Your task to perform on an android device: Open calendar and show me the fourth week of next month Image 0: 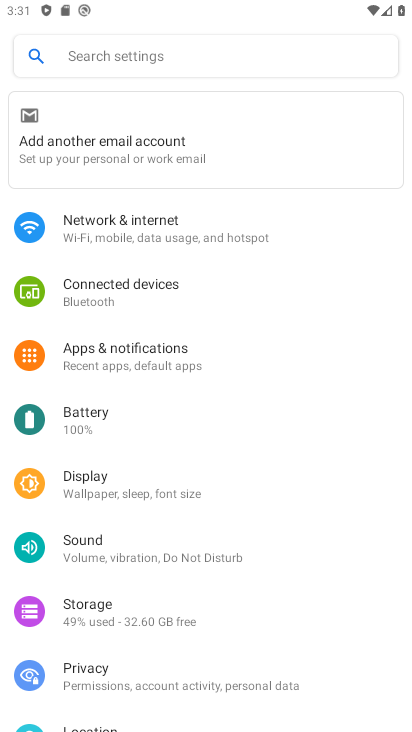
Step 0: press back button
Your task to perform on an android device: Open calendar and show me the fourth week of next month Image 1: 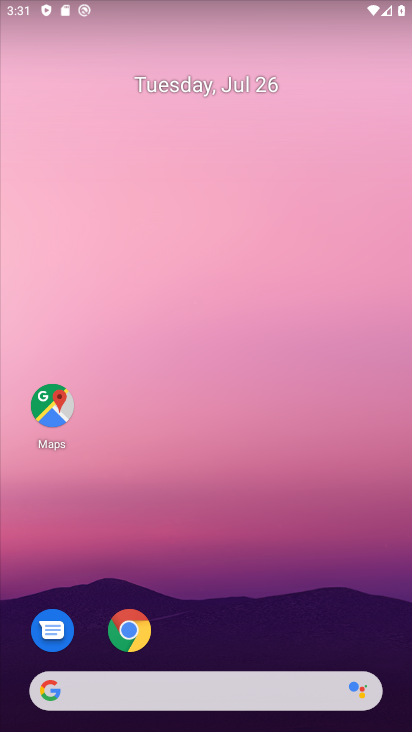
Step 1: drag from (214, 505) to (226, 377)
Your task to perform on an android device: Open calendar and show me the fourth week of next month Image 2: 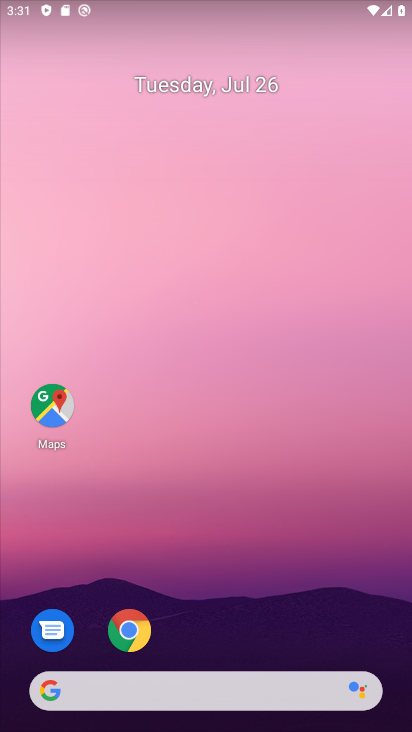
Step 2: drag from (243, 422) to (187, 241)
Your task to perform on an android device: Open calendar and show me the fourth week of next month Image 3: 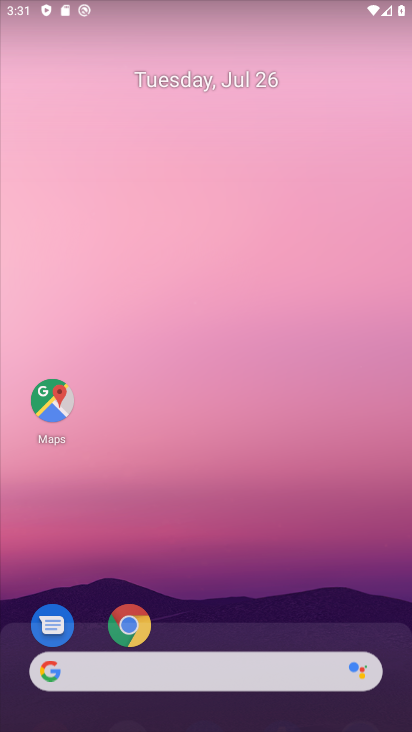
Step 3: drag from (174, 540) to (156, 205)
Your task to perform on an android device: Open calendar and show me the fourth week of next month Image 4: 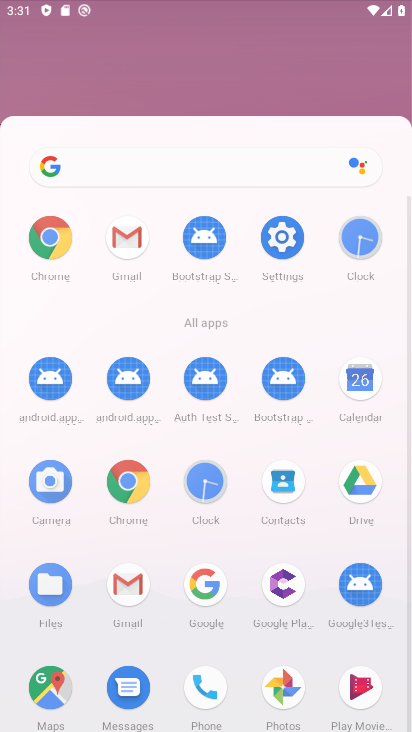
Step 4: drag from (122, 651) to (88, 153)
Your task to perform on an android device: Open calendar and show me the fourth week of next month Image 5: 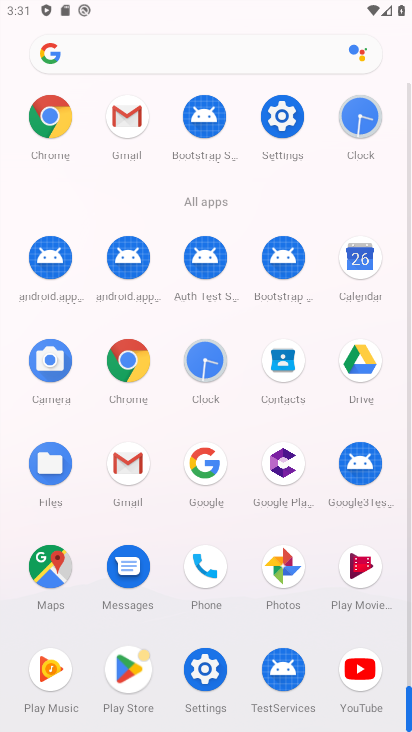
Step 5: click (359, 250)
Your task to perform on an android device: Open calendar and show me the fourth week of next month Image 6: 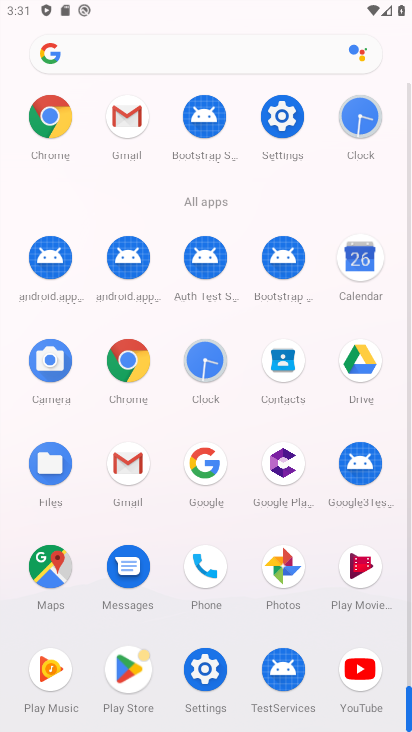
Step 6: click (365, 251)
Your task to perform on an android device: Open calendar and show me the fourth week of next month Image 7: 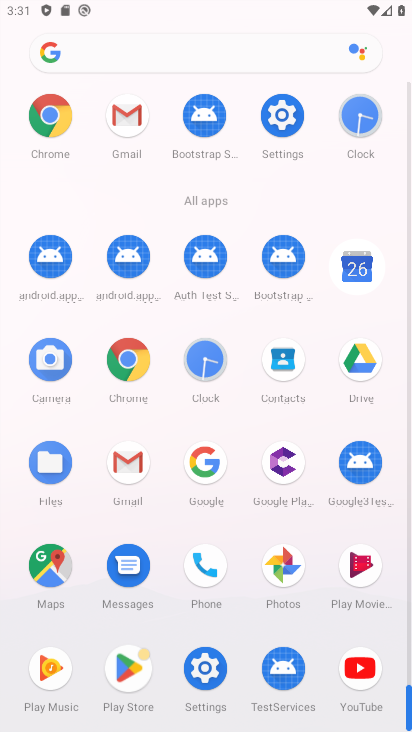
Step 7: click (365, 251)
Your task to perform on an android device: Open calendar and show me the fourth week of next month Image 8: 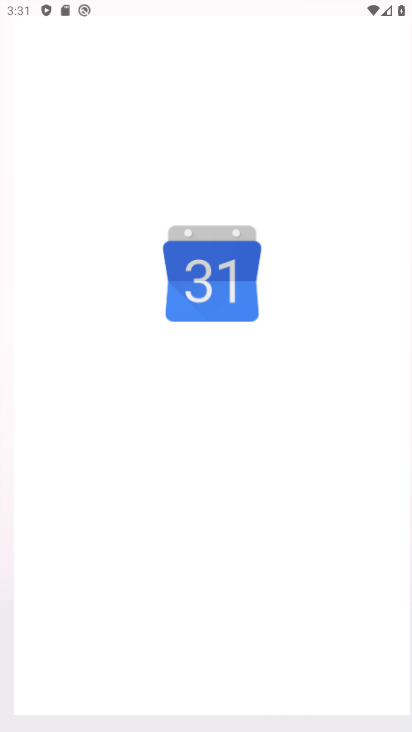
Step 8: click (365, 251)
Your task to perform on an android device: Open calendar and show me the fourth week of next month Image 9: 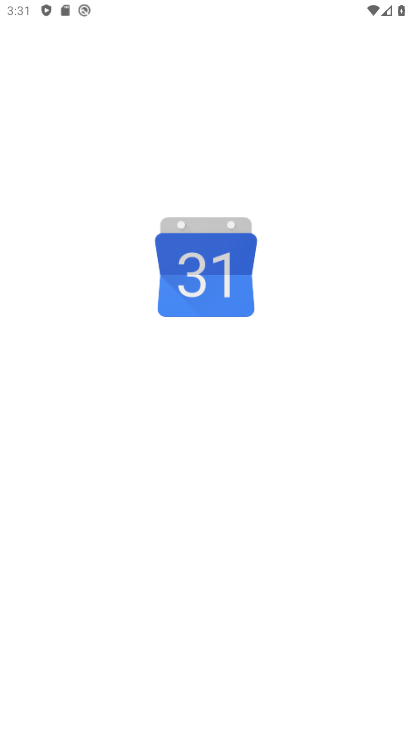
Step 9: click (365, 251)
Your task to perform on an android device: Open calendar and show me the fourth week of next month Image 10: 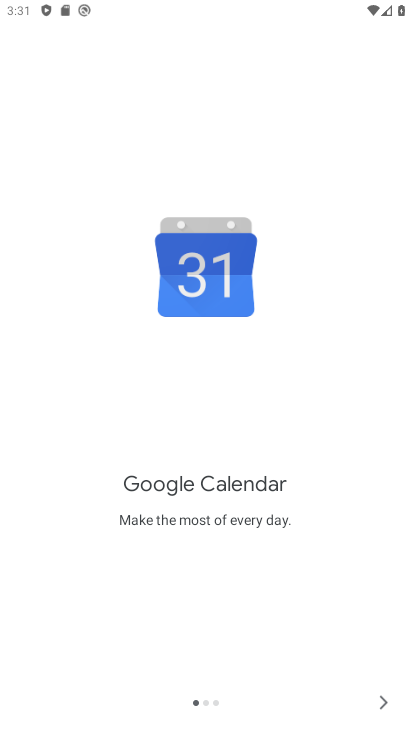
Step 10: click (380, 688)
Your task to perform on an android device: Open calendar and show me the fourth week of next month Image 11: 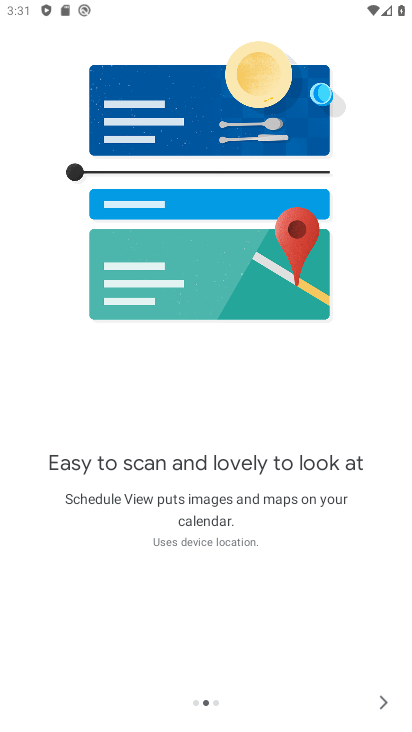
Step 11: click (383, 693)
Your task to perform on an android device: Open calendar and show me the fourth week of next month Image 12: 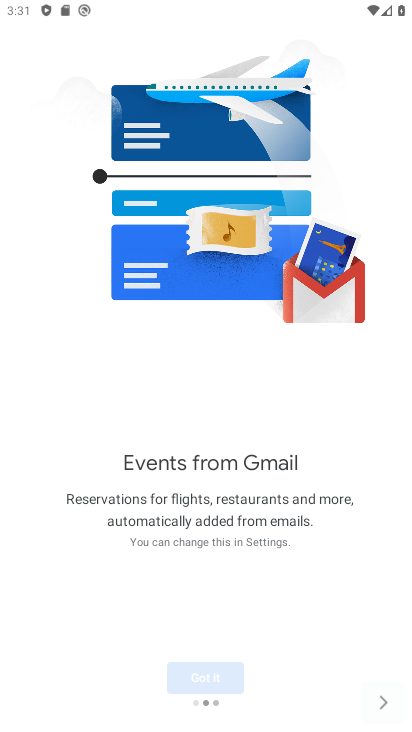
Step 12: click (383, 699)
Your task to perform on an android device: Open calendar and show me the fourth week of next month Image 13: 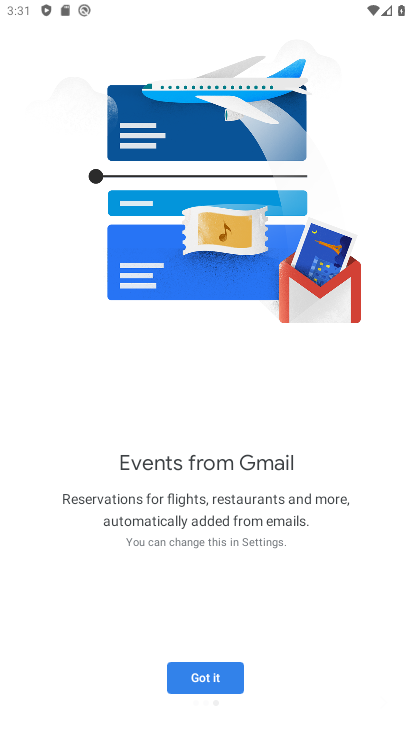
Step 13: click (383, 699)
Your task to perform on an android device: Open calendar and show me the fourth week of next month Image 14: 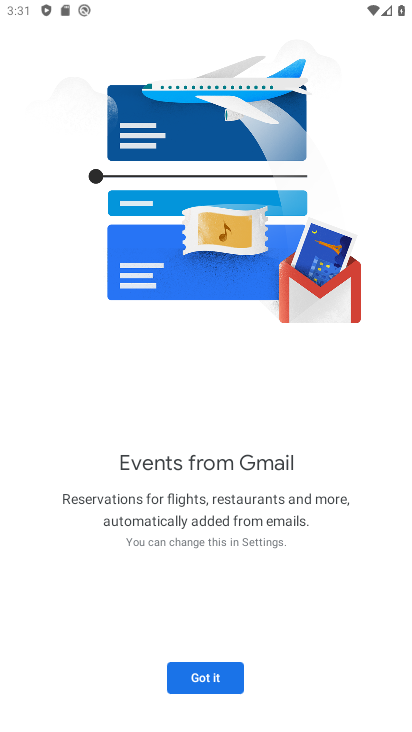
Step 14: click (209, 676)
Your task to perform on an android device: Open calendar and show me the fourth week of next month Image 15: 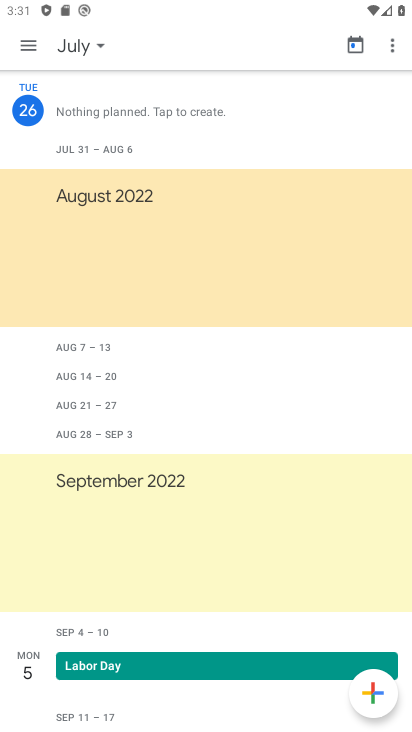
Step 15: click (95, 44)
Your task to perform on an android device: Open calendar and show me the fourth week of next month Image 16: 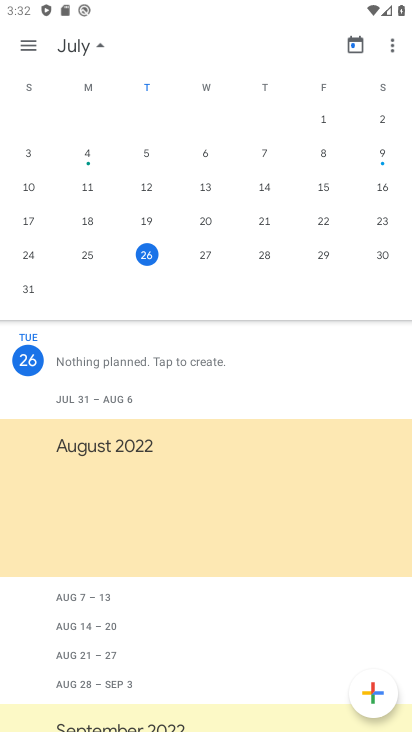
Step 16: drag from (286, 185) to (33, 220)
Your task to perform on an android device: Open calendar and show me the fourth week of next month Image 17: 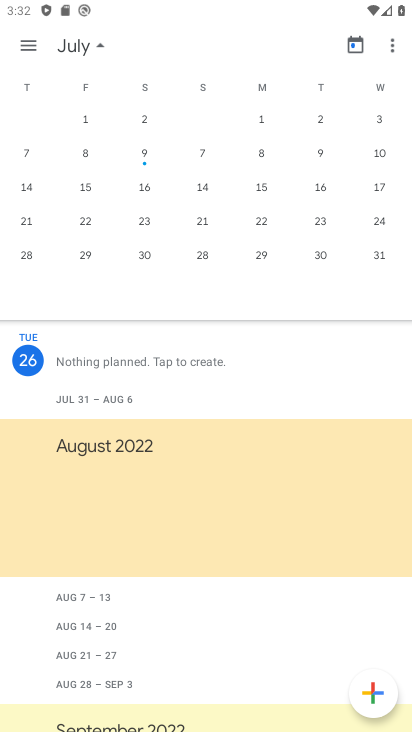
Step 17: drag from (288, 239) to (3, 212)
Your task to perform on an android device: Open calendar and show me the fourth week of next month Image 18: 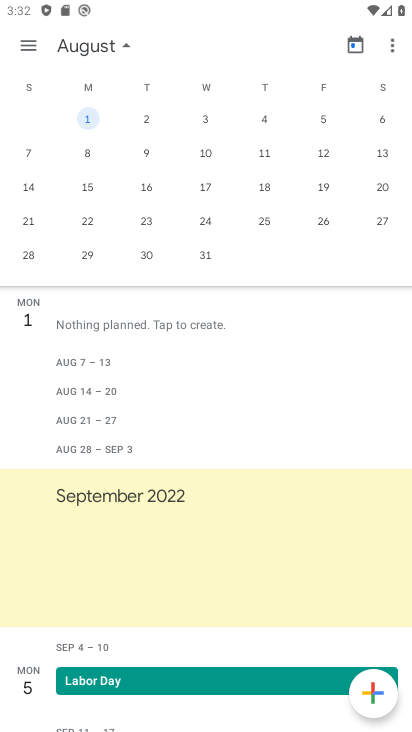
Step 18: click (144, 225)
Your task to perform on an android device: Open calendar and show me the fourth week of next month Image 19: 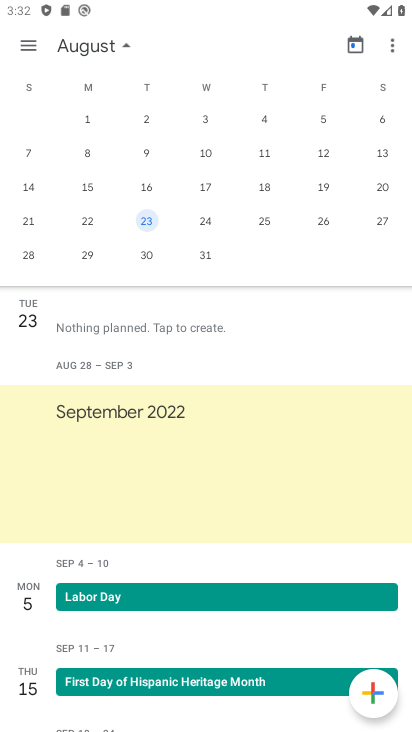
Step 19: click (148, 216)
Your task to perform on an android device: Open calendar and show me the fourth week of next month Image 20: 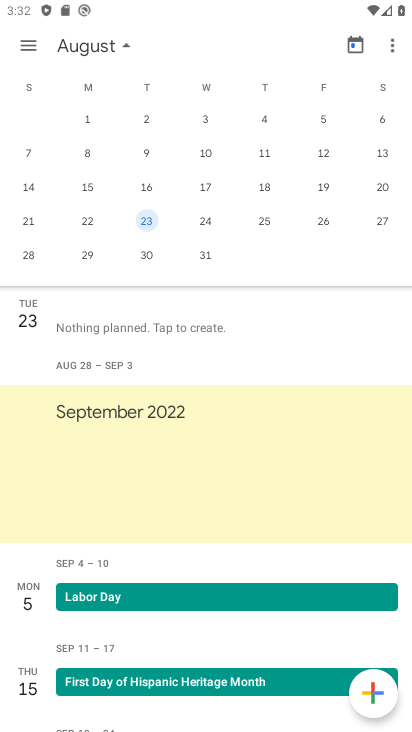
Step 20: click (151, 216)
Your task to perform on an android device: Open calendar and show me the fourth week of next month Image 21: 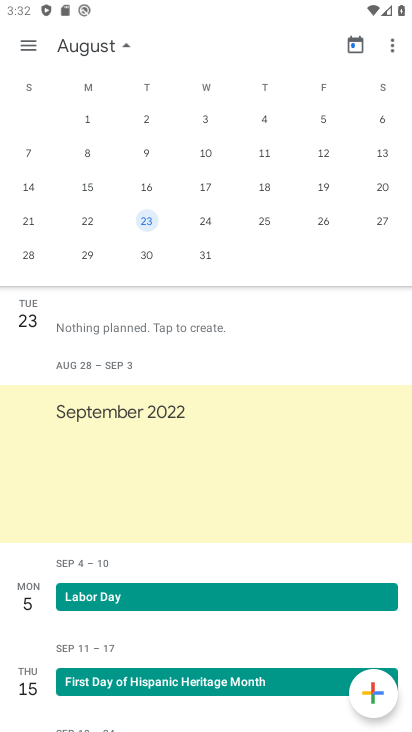
Step 21: task complete